Your task to perform on an android device: Do I have any events tomorrow? Image 0: 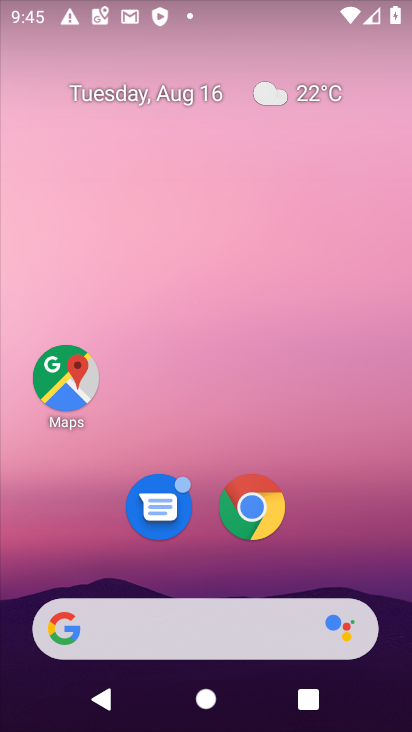
Step 0: drag from (198, 557) to (314, 54)
Your task to perform on an android device: Do I have any events tomorrow? Image 1: 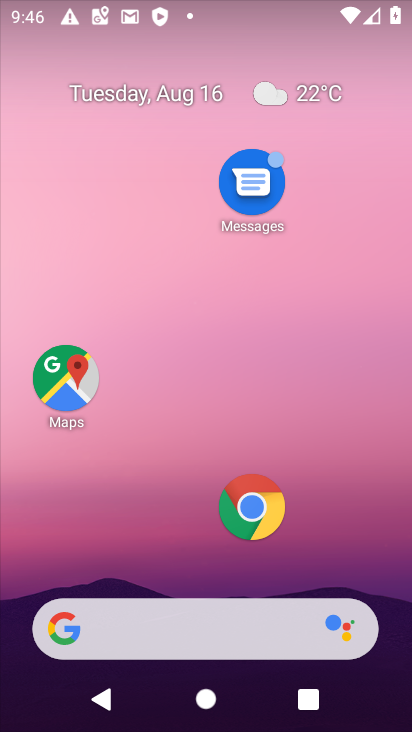
Step 1: drag from (166, 581) to (194, 165)
Your task to perform on an android device: Do I have any events tomorrow? Image 2: 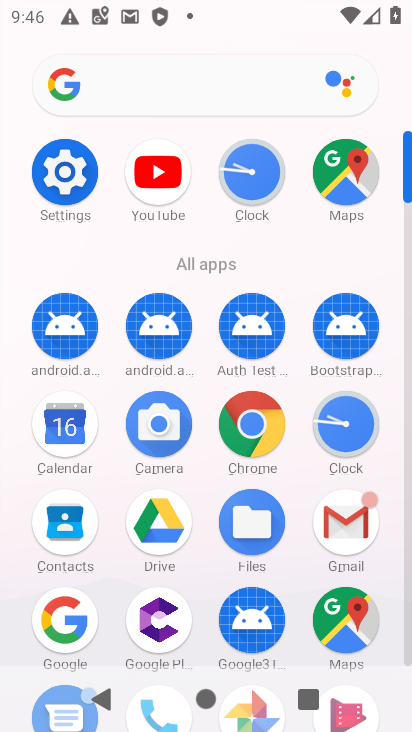
Step 2: click (58, 435)
Your task to perform on an android device: Do I have any events tomorrow? Image 3: 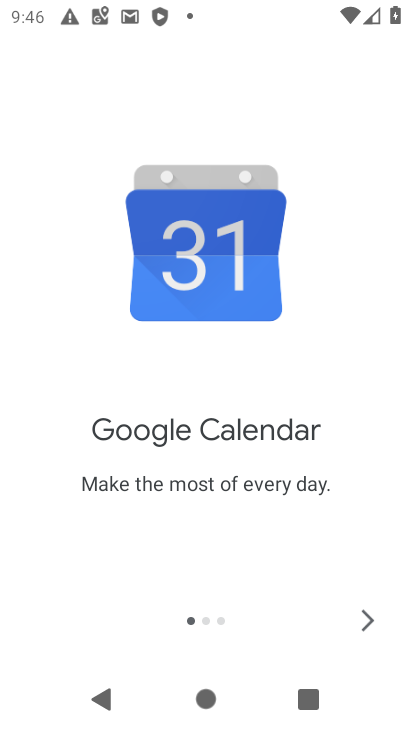
Step 3: click (372, 618)
Your task to perform on an android device: Do I have any events tomorrow? Image 4: 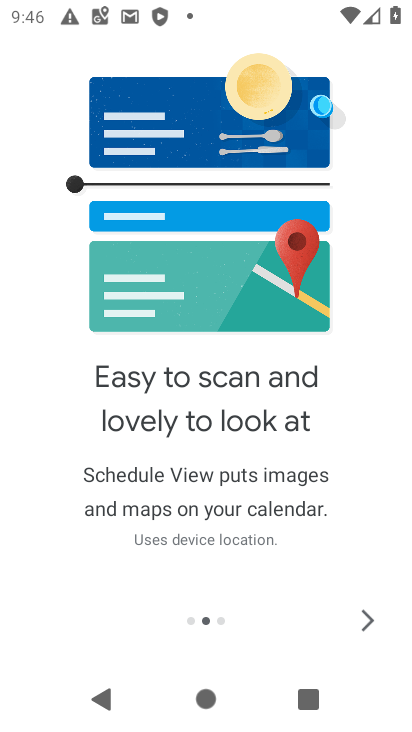
Step 4: click (365, 616)
Your task to perform on an android device: Do I have any events tomorrow? Image 5: 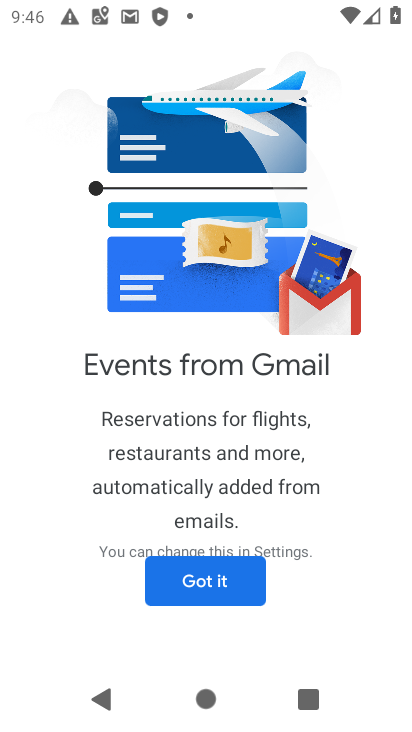
Step 5: click (199, 588)
Your task to perform on an android device: Do I have any events tomorrow? Image 6: 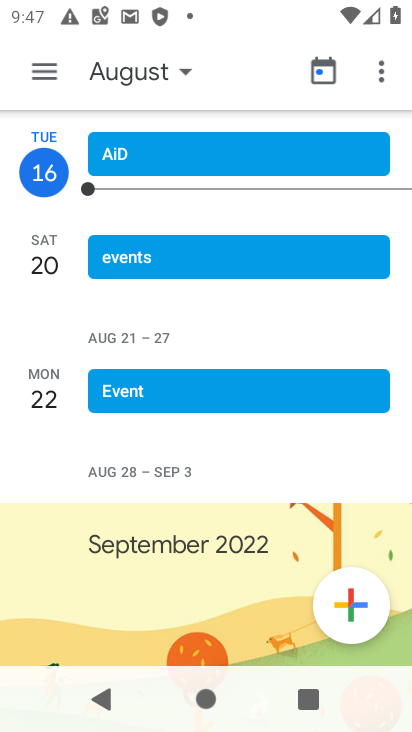
Step 6: click (153, 65)
Your task to perform on an android device: Do I have any events tomorrow? Image 7: 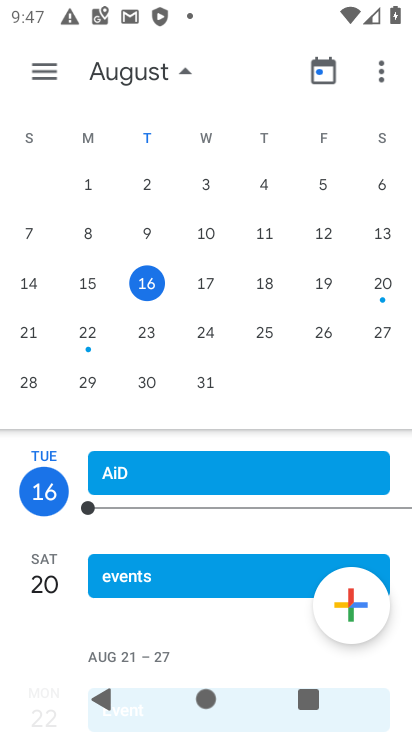
Step 7: click (201, 277)
Your task to perform on an android device: Do I have any events tomorrow? Image 8: 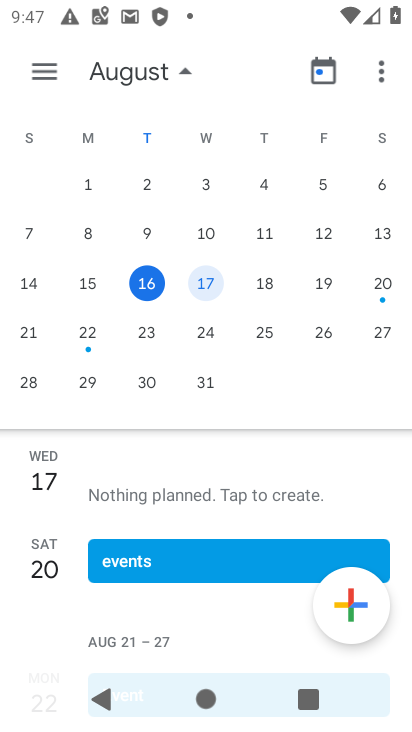
Step 8: click (256, 277)
Your task to perform on an android device: Do I have any events tomorrow? Image 9: 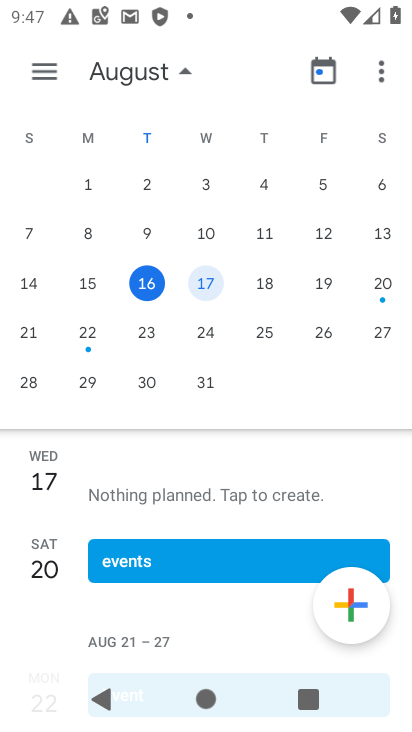
Step 9: task complete